Your task to perform on an android device: open app "Walmart Shopping & Grocery" Image 0: 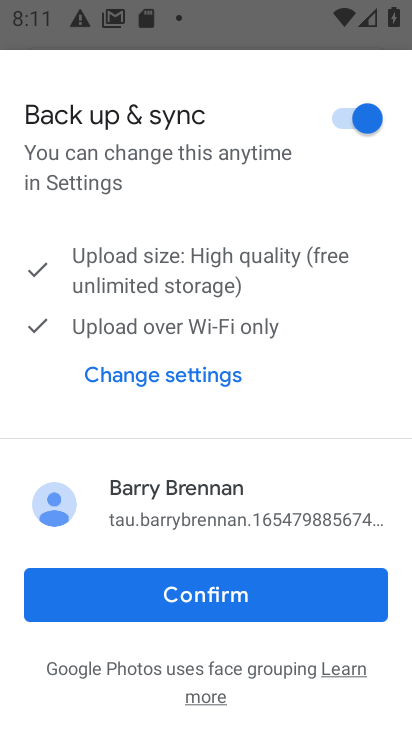
Step 0: press back button
Your task to perform on an android device: open app "Walmart Shopping & Grocery" Image 1: 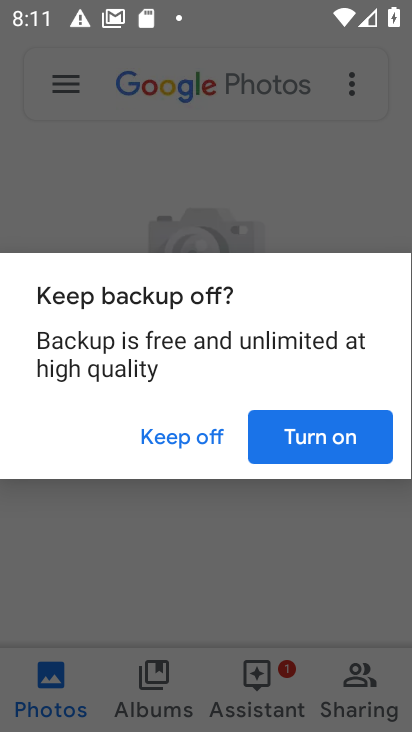
Step 1: press home button
Your task to perform on an android device: open app "Walmart Shopping & Grocery" Image 2: 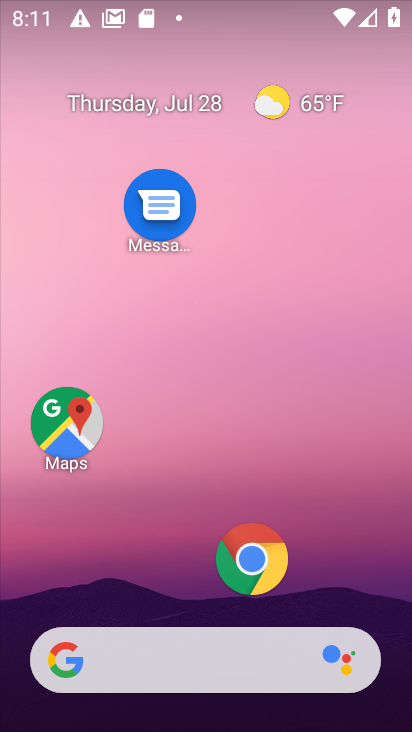
Step 2: drag from (202, 604) to (190, 121)
Your task to perform on an android device: open app "Walmart Shopping & Grocery" Image 3: 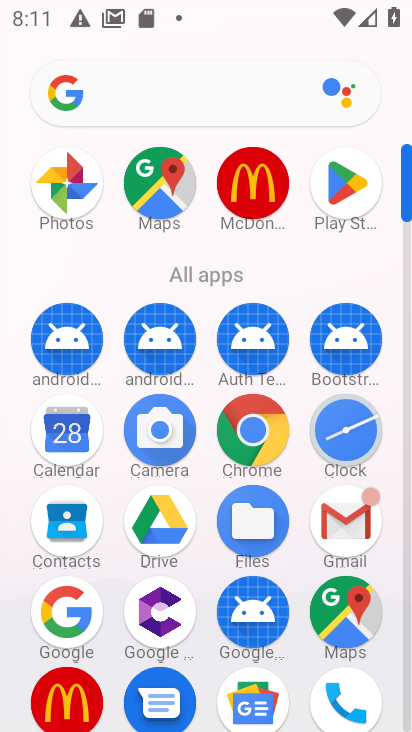
Step 3: drag from (202, 594) to (163, 272)
Your task to perform on an android device: open app "Walmart Shopping & Grocery" Image 4: 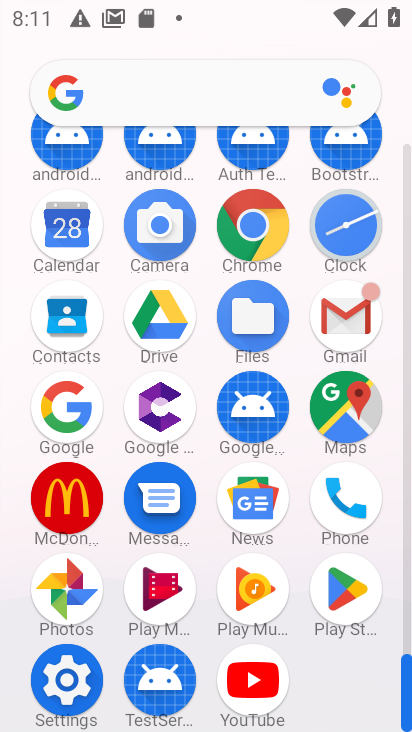
Step 4: click (333, 592)
Your task to perform on an android device: open app "Walmart Shopping & Grocery" Image 5: 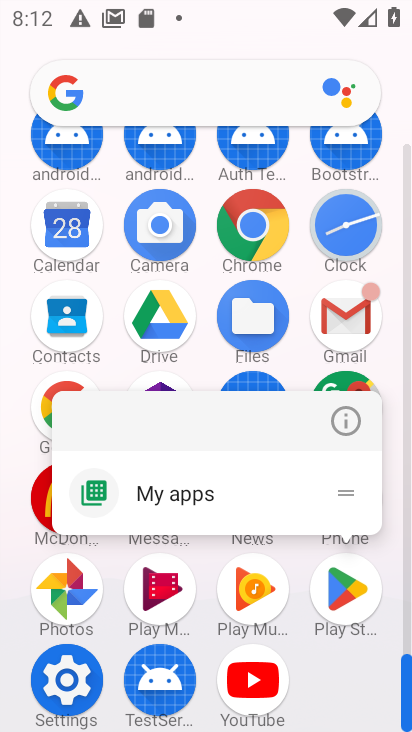
Step 5: click (346, 429)
Your task to perform on an android device: open app "Walmart Shopping & Grocery" Image 6: 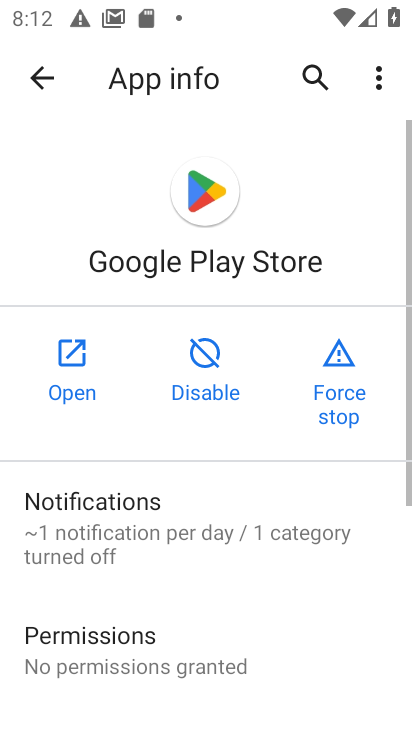
Step 6: click (58, 365)
Your task to perform on an android device: open app "Walmart Shopping & Grocery" Image 7: 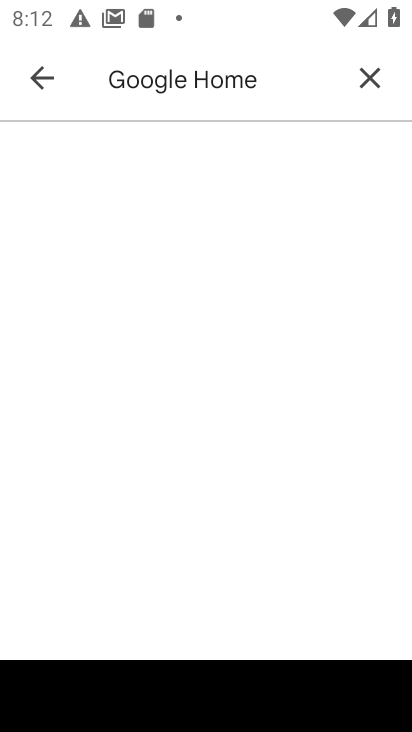
Step 7: drag from (153, 466) to (227, 264)
Your task to perform on an android device: open app "Walmart Shopping & Grocery" Image 8: 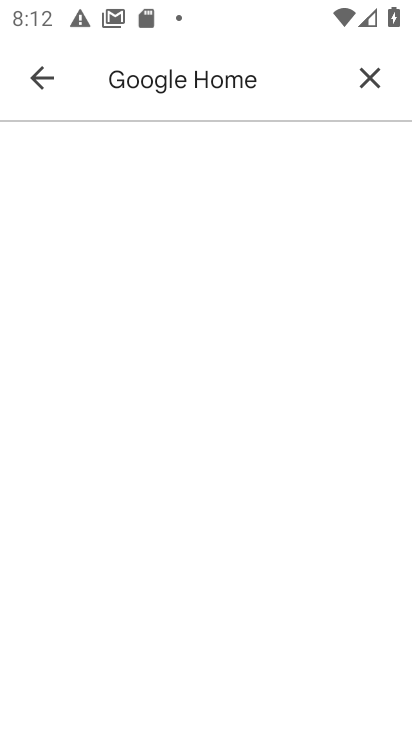
Step 8: click (368, 79)
Your task to perform on an android device: open app "Walmart Shopping & Grocery" Image 9: 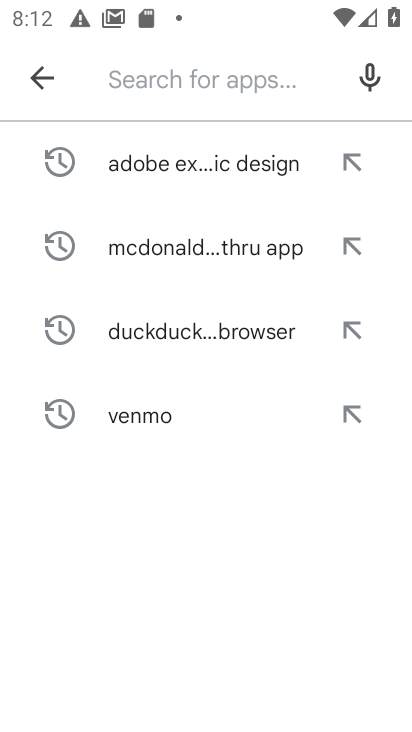
Step 9: click (29, 86)
Your task to perform on an android device: open app "Walmart Shopping & Grocery" Image 10: 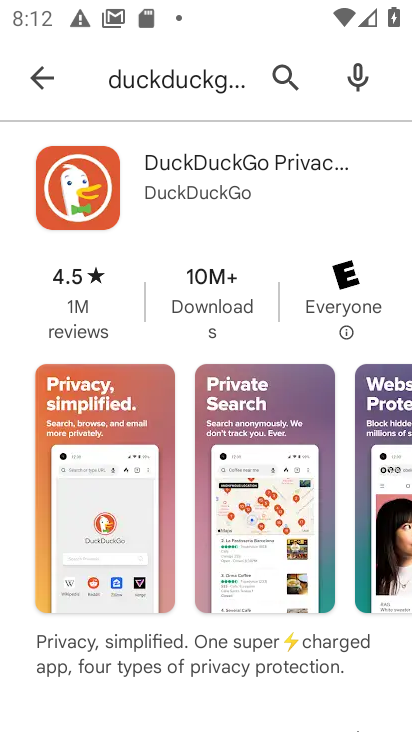
Step 10: press back button
Your task to perform on an android device: open app "Walmart Shopping & Grocery" Image 11: 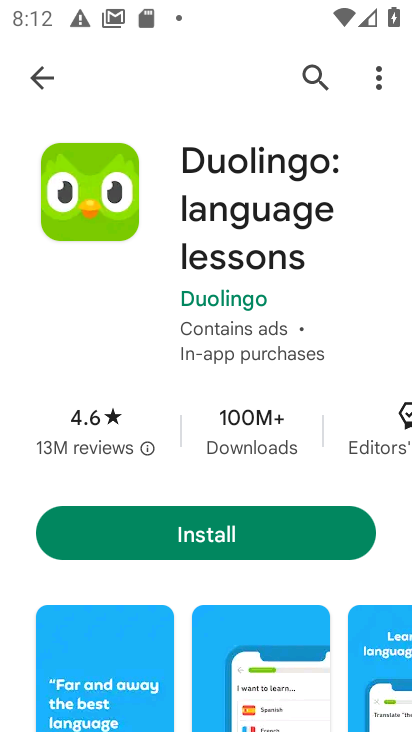
Step 11: press back button
Your task to perform on an android device: open app "Walmart Shopping & Grocery" Image 12: 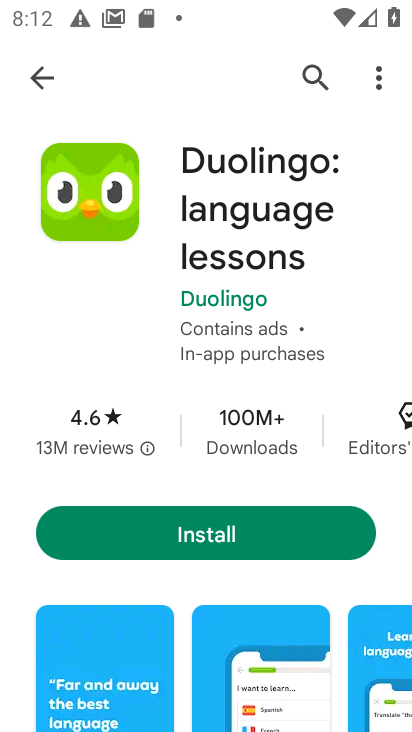
Step 12: press back button
Your task to perform on an android device: open app "Walmart Shopping & Grocery" Image 13: 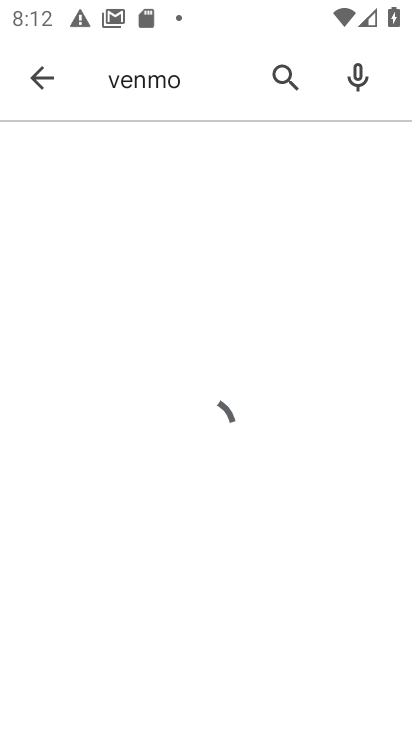
Step 13: press home button
Your task to perform on an android device: open app "Walmart Shopping & Grocery" Image 14: 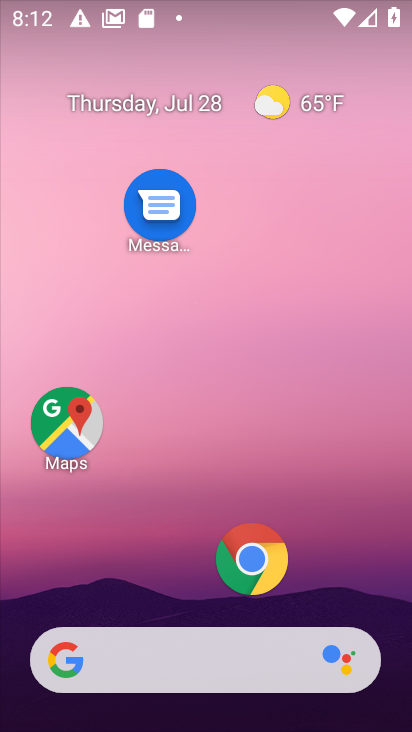
Step 14: drag from (198, 588) to (198, 162)
Your task to perform on an android device: open app "Walmart Shopping & Grocery" Image 15: 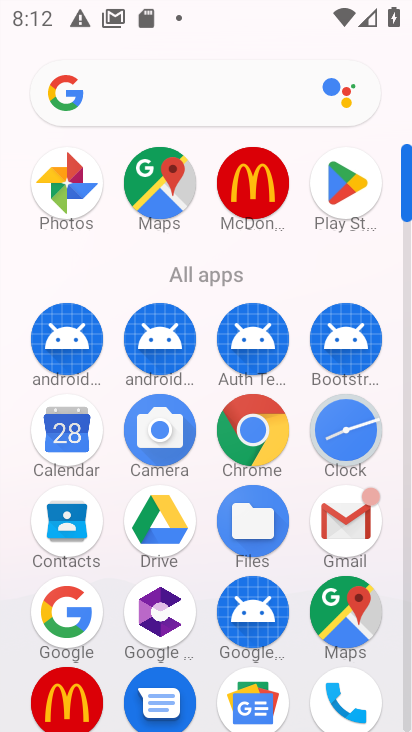
Step 15: click (344, 178)
Your task to perform on an android device: open app "Walmart Shopping & Grocery" Image 16: 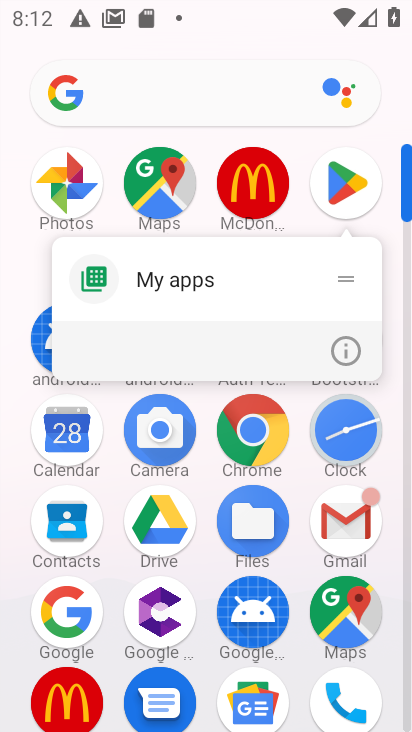
Step 16: click (347, 351)
Your task to perform on an android device: open app "Walmart Shopping & Grocery" Image 17: 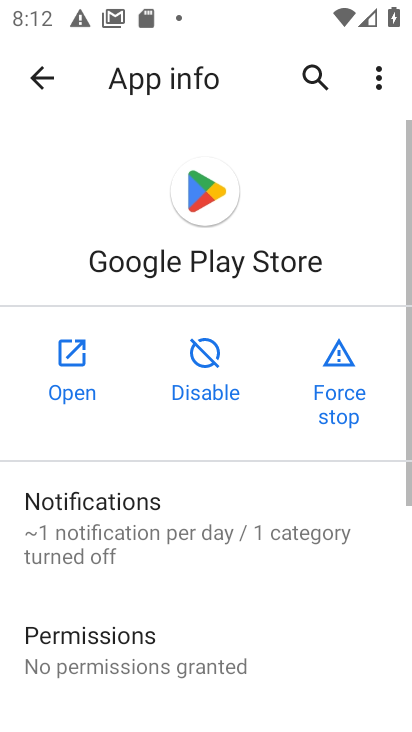
Step 17: click (89, 355)
Your task to perform on an android device: open app "Walmart Shopping & Grocery" Image 18: 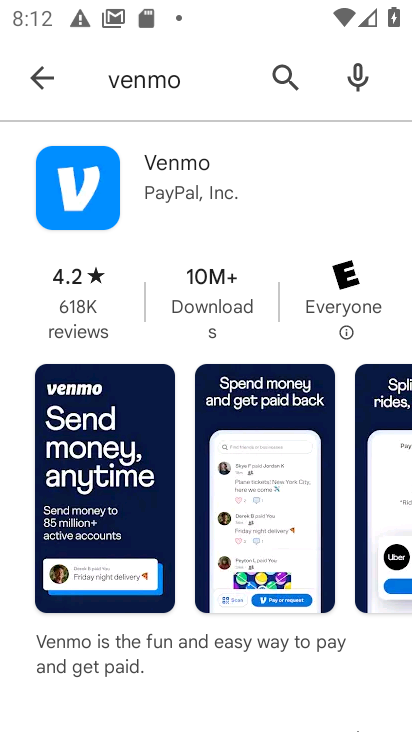
Step 18: click (275, 57)
Your task to perform on an android device: open app "Walmart Shopping & Grocery" Image 19: 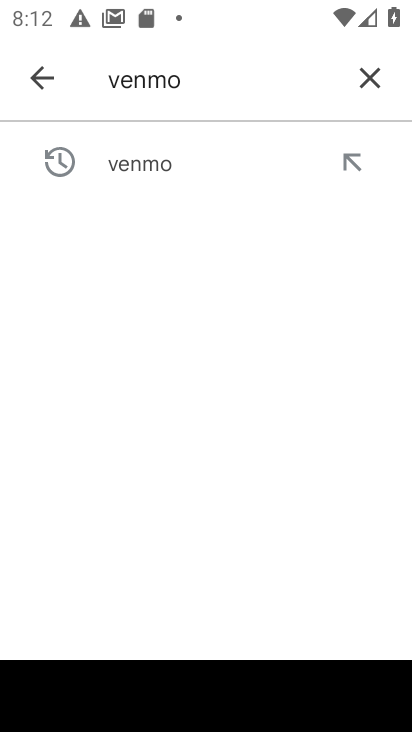
Step 19: click (370, 81)
Your task to perform on an android device: open app "Walmart Shopping & Grocery" Image 20: 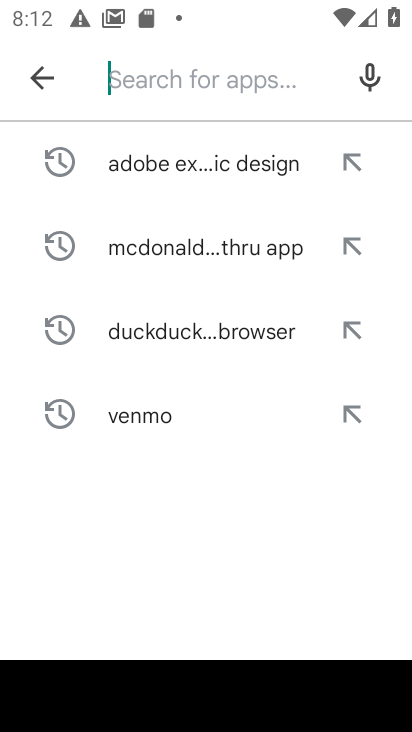
Step 20: type "Walmart Shopping & Grocery"
Your task to perform on an android device: open app "Walmart Shopping & Grocery" Image 21: 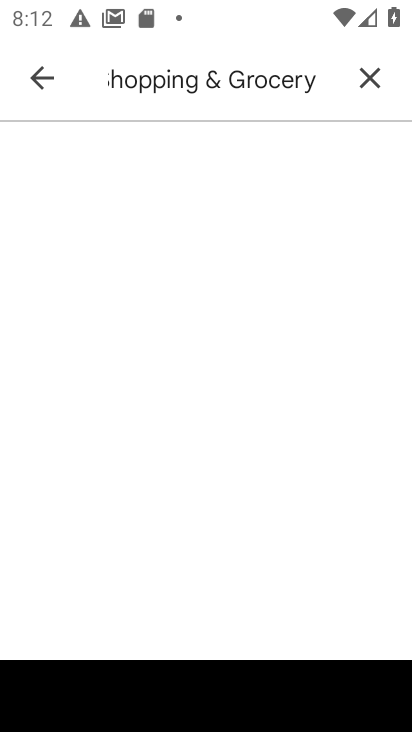
Step 21: click (125, 167)
Your task to perform on an android device: open app "Walmart Shopping & Grocery" Image 22: 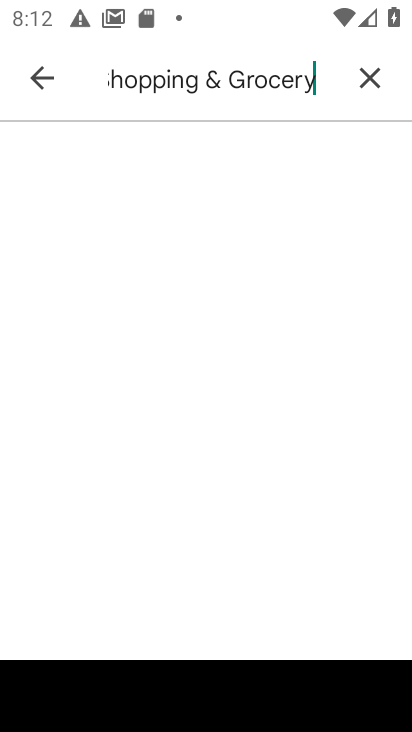
Step 22: drag from (132, 169) to (255, 216)
Your task to perform on an android device: open app "Walmart Shopping & Grocery" Image 23: 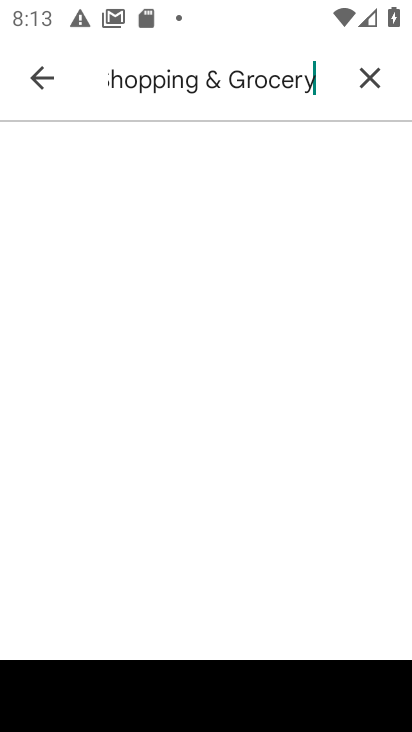
Step 23: click (173, 260)
Your task to perform on an android device: open app "Walmart Shopping & Grocery" Image 24: 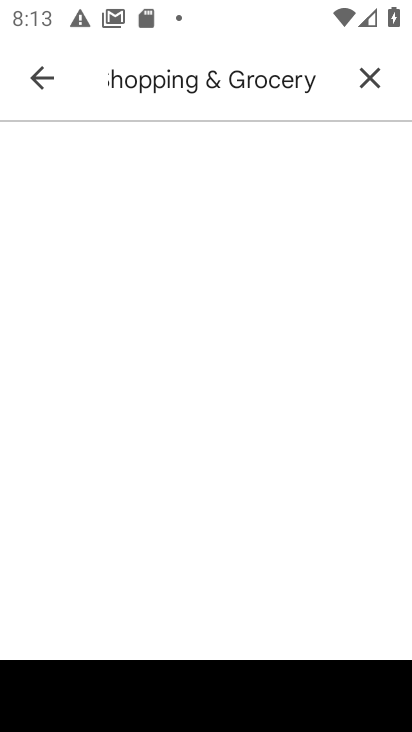
Step 24: click (270, 184)
Your task to perform on an android device: open app "Walmart Shopping & Grocery" Image 25: 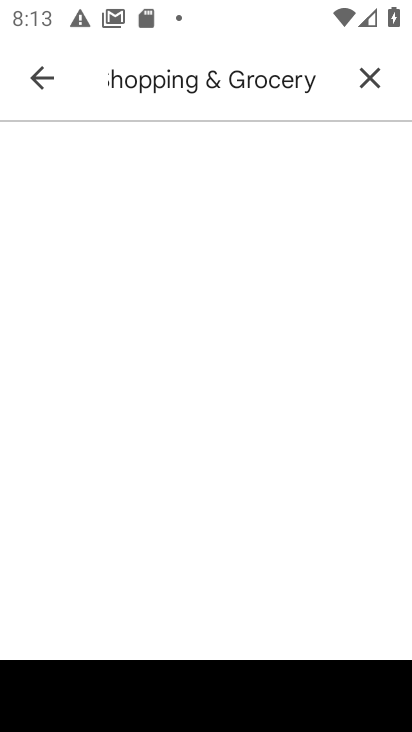
Step 25: click (270, 184)
Your task to perform on an android device: open app "Walmart Shopping & Grocery" Image 26: 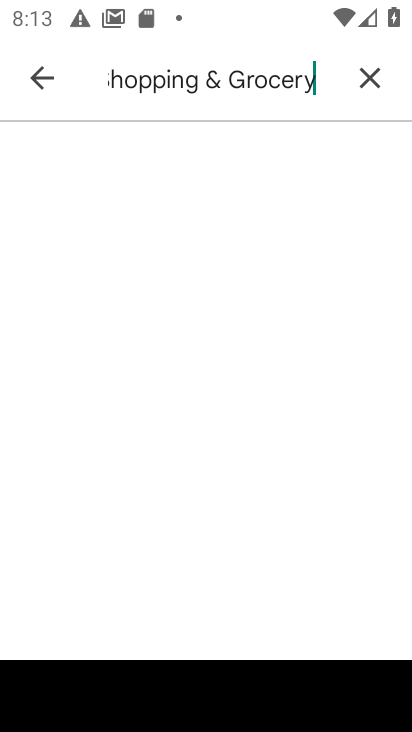
Step 26: click (272, 184)
Your task to perform on an android device: open app "Walmart Shopping & Grocery" Image 27: 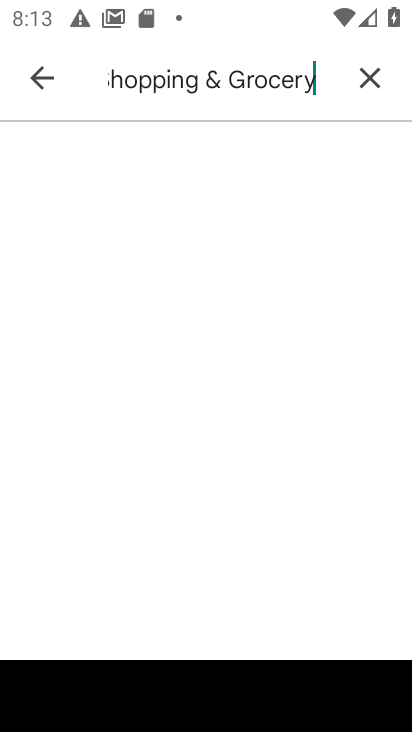
Step 27: click (273, 183)
Your task to perform on an android device: open app "Walmart Shopping & Grocery" Image 28: 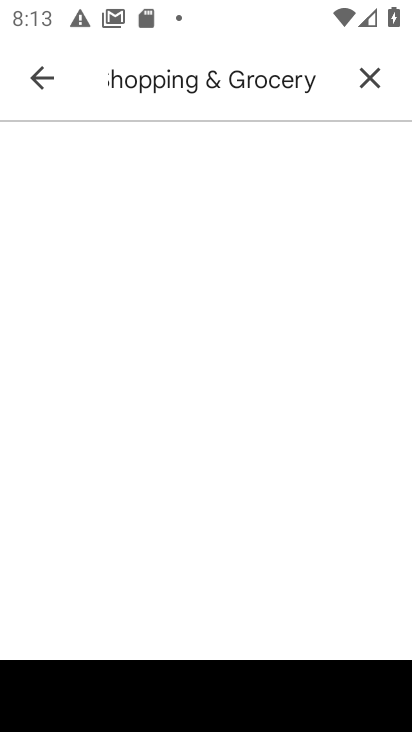
Step 28: click (273, 183)
Your task to perform on an android device: open app "Walmart Shopping & Grocery" Image 29: 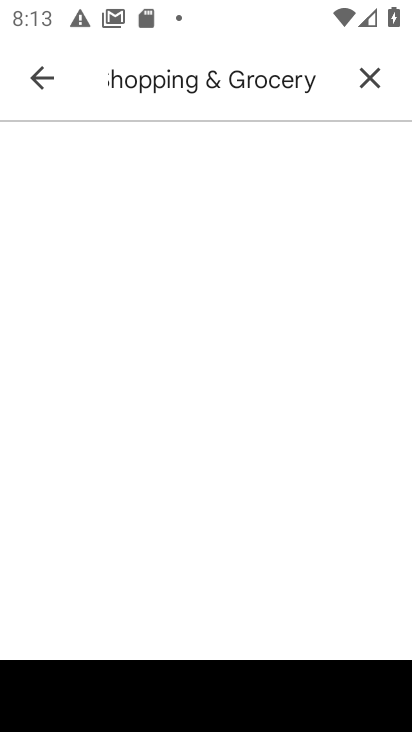
Step 29: click (273, 180)
Your task to perform on an android device: open app "Walmart Shopping & Grocery" Image 30: 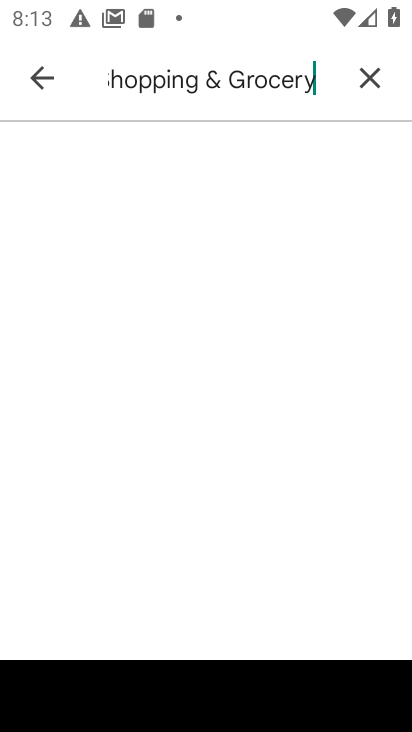
Step 30: click (271, 177)
Your task to perform on an android device: open app "Walmart Shopping & Grocery" Image 31: 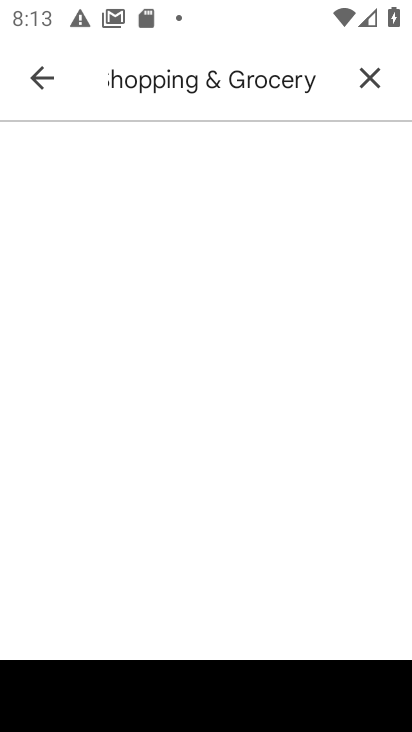
Step 31: click (236, 180)
Your task to perform on an android device: open app "Walmart Shopping & Grocery" Image 32: 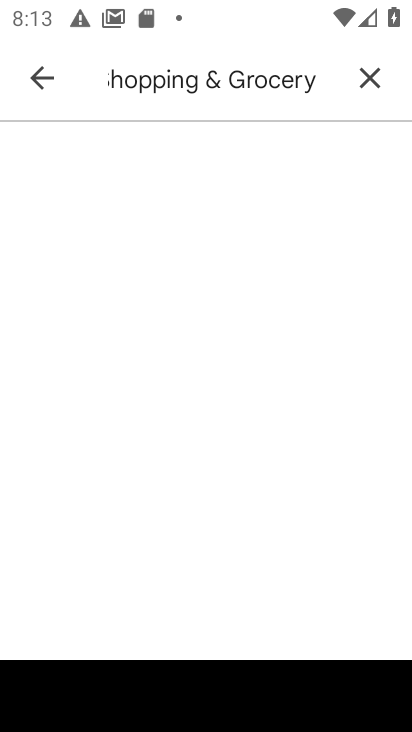
Step 32: click (236, 183)
Your task to perform on an android device: open app "Walmart Shopping & Grocery" Image 33: 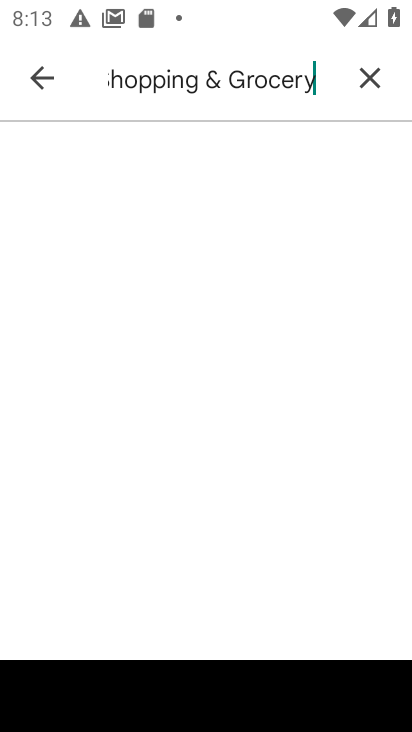
Step 33: task complete